Your task to perform on an android device: choose inbox layout in the gmail app Image 0: 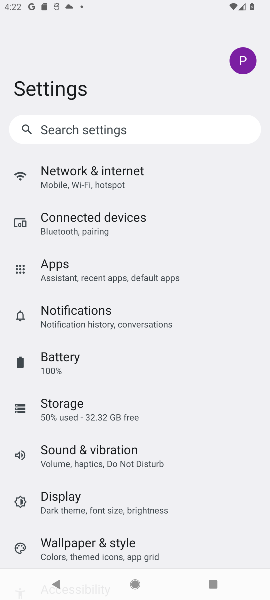
Step 0: press back button
Your task to perform on an android device: choose inbox layout in the gmail app Image 1: 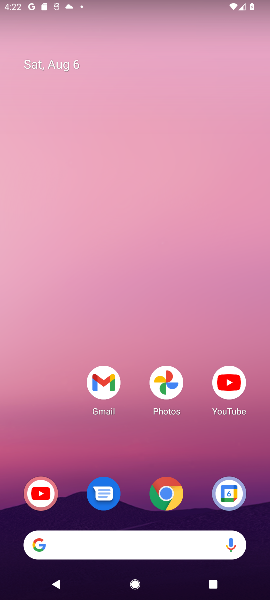
Step 1: drag from (170, 560) to (118, 214)
Your task to perform on an android device: choose inbox layout in the gmail app Image 2: 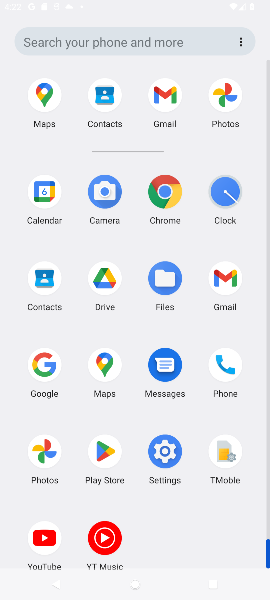
Step 2: drag from (125, 458) to (98, 255)
Your task to perform on an android device: choose inbox layout in the gmail app Image 3: 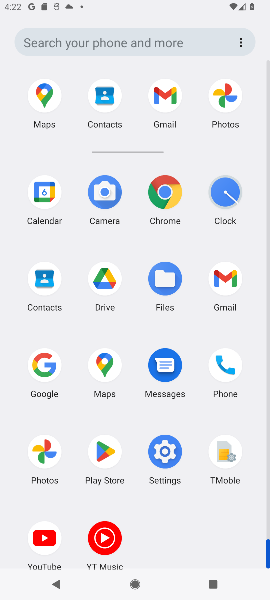
Step 3: click (227, 277)
Your task to perform on an android device: choose inbox layout in the gmail app Image 4: 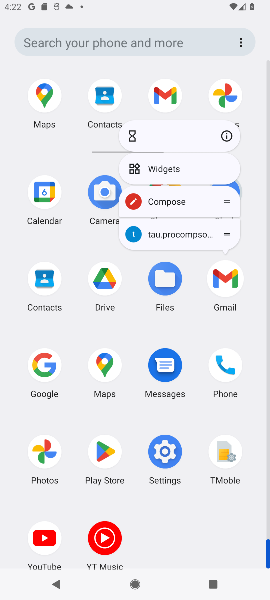
Step 4: click (227, 277)
Your task to perform on an android device: choose inbox layout in the gmail app Image 5: 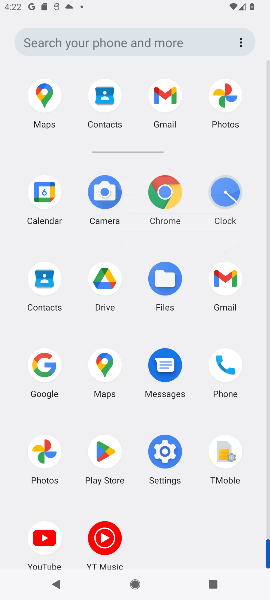
Step 5: click (227, 277)
Your task to perform on an android device: choose inbox layout in the gmail app Image 6: 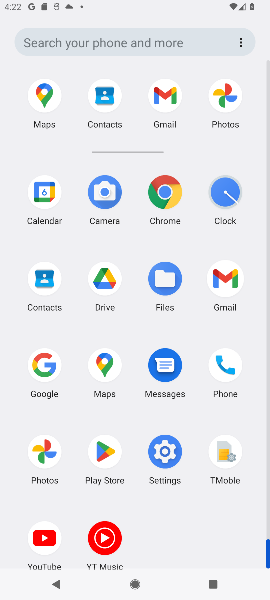
Step 6: click (227, 277)
Your task to perform on an android device: choose inbox layout in the gmail app Image 7: 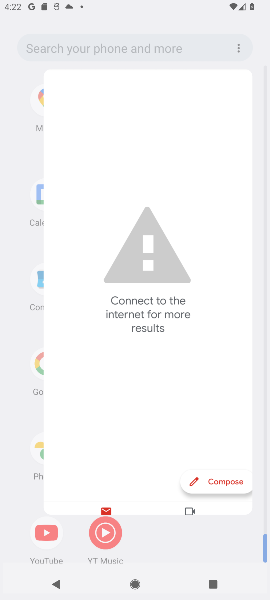
Step 7: click (227, 277)
Your task to perform on an android device: choose inbox layout in the gmail app Image 8: 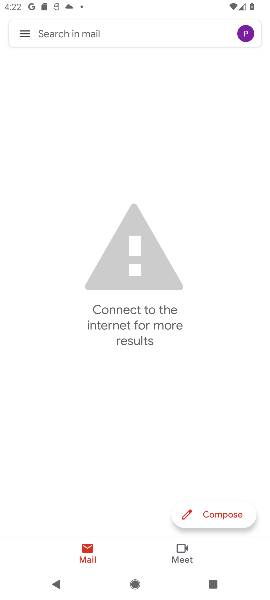
Step 8: click (228, 277)
Your task to perform on an android device: choose inbox layout in the gmail app Image 9: 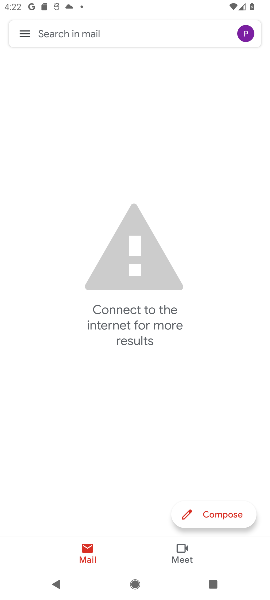
Step 9: click (230, 275)
Your task to perform on an android device: choose inbox layout in the gmail app Image 10: 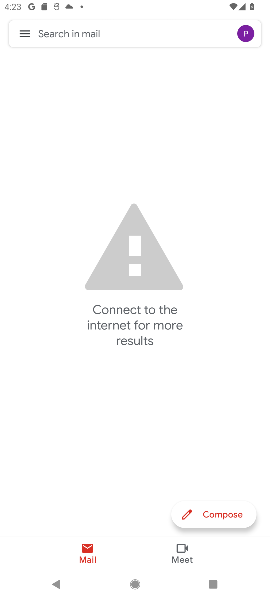
Step 10: press back button
Your task to perform on an android device: choose inbox layout in the gmail app Image 11: 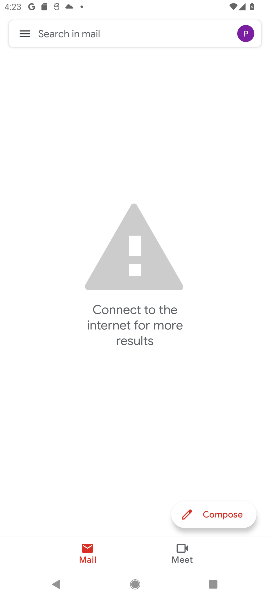
Step 11: press back button
Your task to perform on an android device: choose inbox layout in the gmail app Image 12: 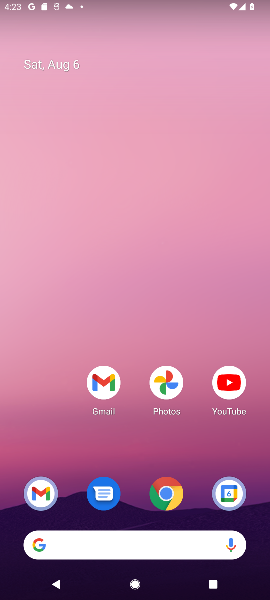
Step 12: drag from (185, 539) to (171, 234)
Your task to perform on an android device: choose inbox layout in the gmail app Image 13: 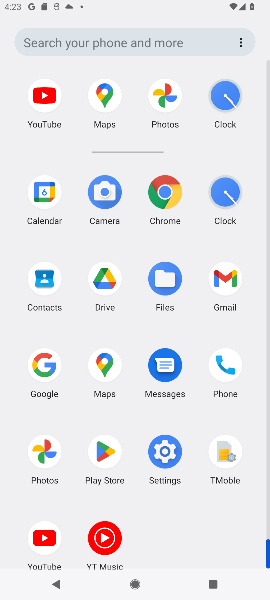
Step 13: click (227, 285)
Your task to perform on an android device: choose inbox layout in the gmail app Image 14: 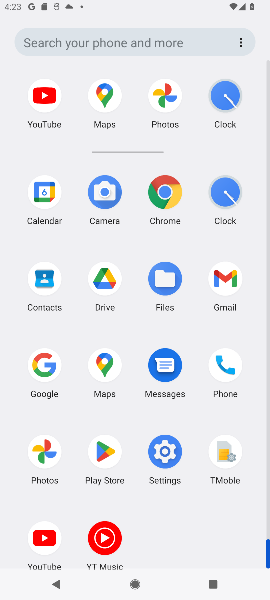
Step 14: click (227, 285)
Your task to perform on an android device: choose inbox layout in the gmail app Image 15: 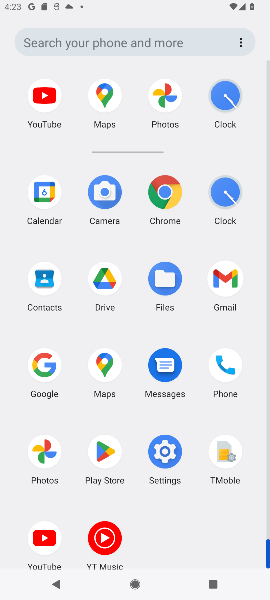
Step 15: click (227, 285)
Your task to perform on an android device: choose inbox layout in the gmail app Image 16: 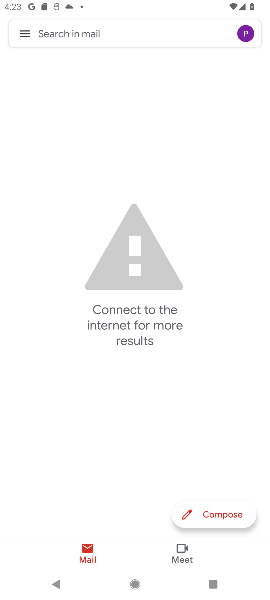
Step 16: press back button
Your task to perform on an android device: choose inbox layout in the gmail app Image 17: 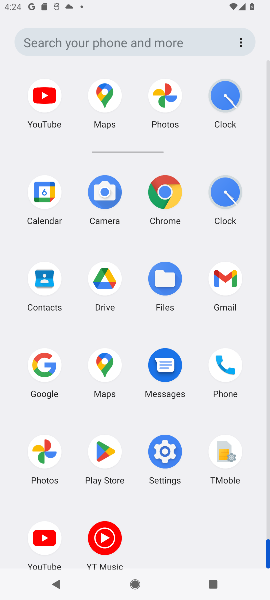
Step 17: click (229, 268)
Your task to perform on an android device: choose inbox layout in the gmail app Image 18: 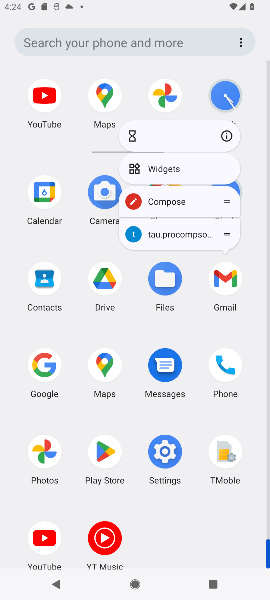
Step 18: click (223, 287)
Your task to perform on an android device: choose inbox layout in the gmail app Image 19: 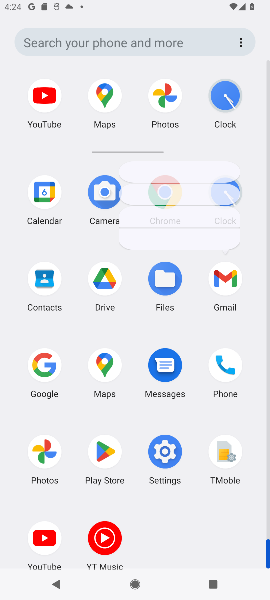
Step 19: click (224, 286)
Your task to perform on an android device: choose inbox layout in the gmail app Image 20: 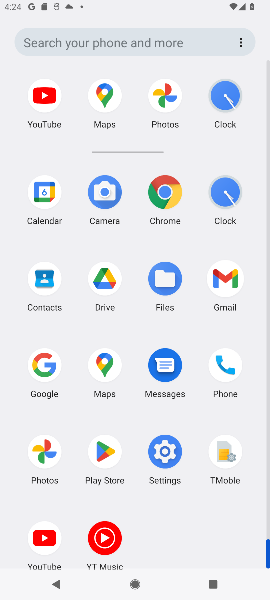
Step 20: click (224, 286)
Your task to perform on an android device: choose inbox layout in the gmail app Image 21: 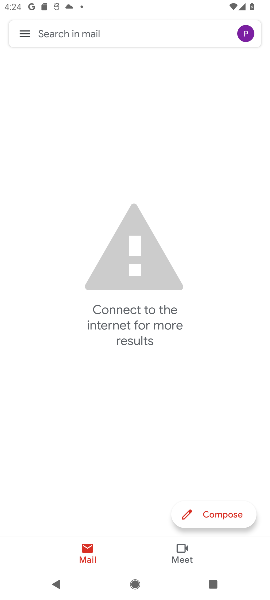
Step 21: click (224, 285)
Your task to perform on an android device: choose inbox layout in the gmail app Image 22: 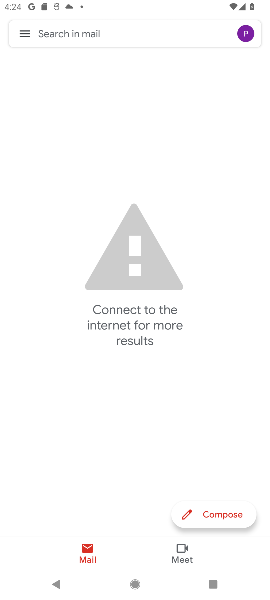
Step 22: click (26, 29)
Your task to perform on an android device: choose inbox layout in the gmail app Image 23: 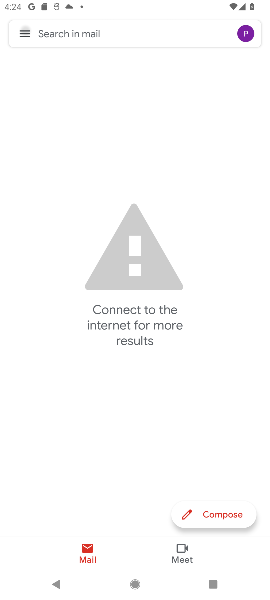
Step 23: click (26, 29)
Your task to perform on an android device: choose inbox layout in the gmail app Image 24: 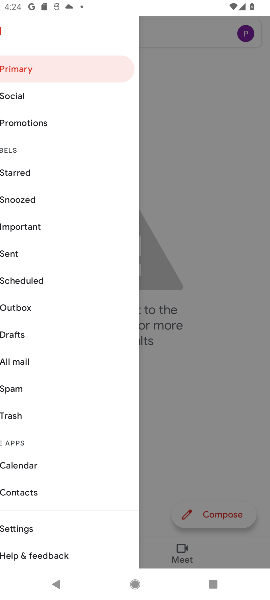
Step 24: click (26, 29)
Your task to perform on an android device: choose inbox layout in the gmail app Image 25: 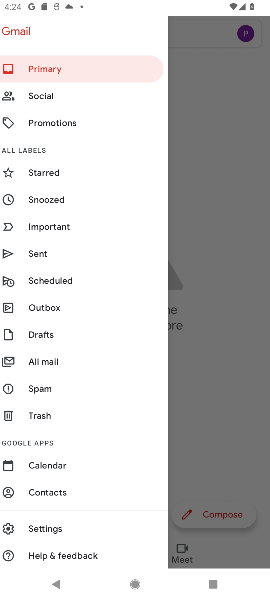
Step 25: click (26, 29)
Your task to perform on an android device: choose inbox layout in the gmail app Image 26: 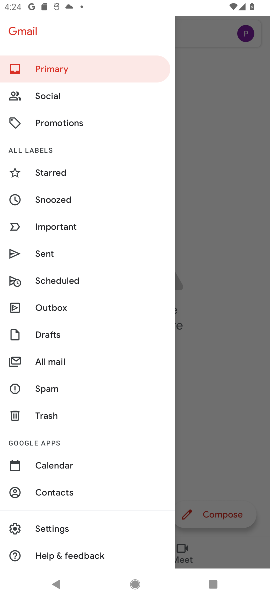
Step 26: click (26, 29)
Your task to perform on an android device: choose inbox layout in the gmail app Image 27: 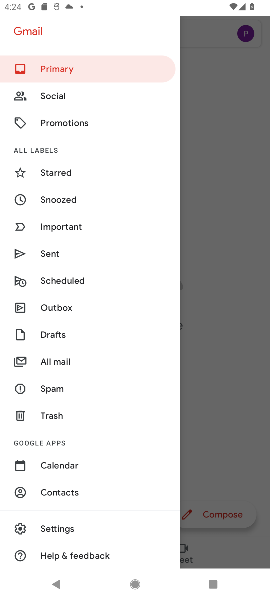
Step 27: click (55, 529)
Your task to perform on an android device: choose inbox layout in the gmail app Image 28: 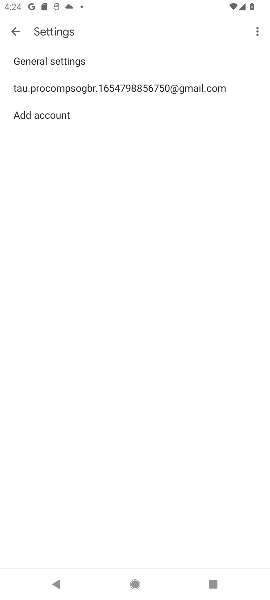
Step 28: click (45, 87)
Your task to perform on an android device: choose inbox layout in the gmail app Image 29: 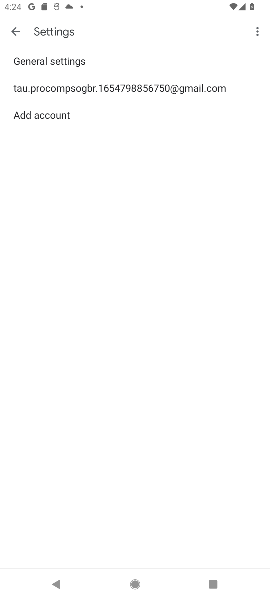
Step 29: click (45, 87)
Your task to perform on an android device: choose inbox layout in the gmail app Image 30: 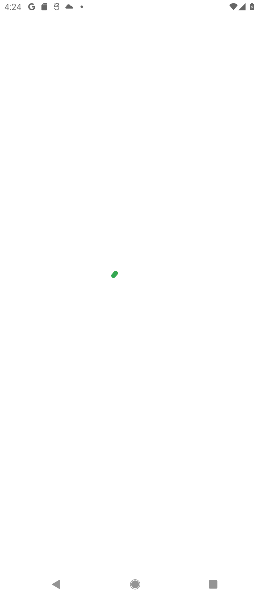
Step 30: press back button
Your task to perform on an android device: choose inbox layout in the gmail app Image 31: 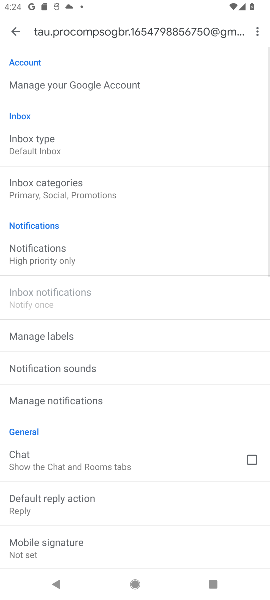
Step 31: click (24, 140)
Your task to perform on an android device: choose inbox layout in the gmail app Image 32: 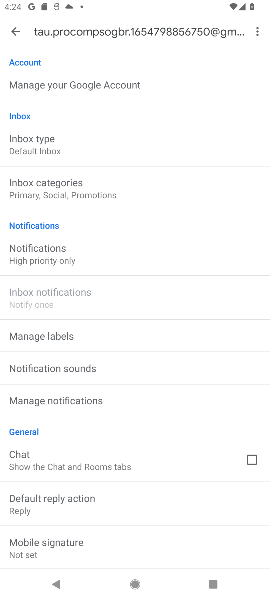
Step 32: click (24, 140)
Your task to perform on an android device: choose inbox layout in the gmail app Image 33: 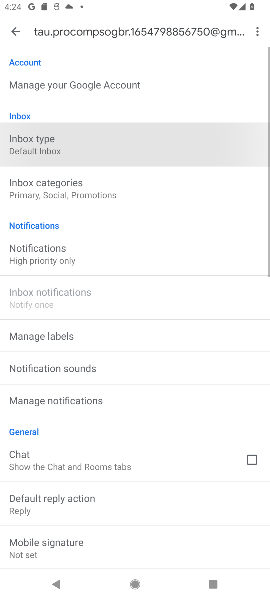
Step 33: click (24, 141)
Your task to perform on an android device: choose inbox layout in the gmail app Image 34: 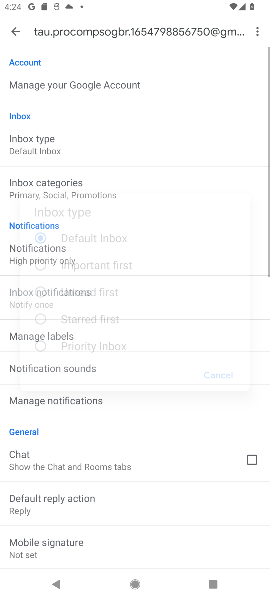
Step 34: task complete